Your task to perform on an android device: Find coffee shops on Maps Image 0: 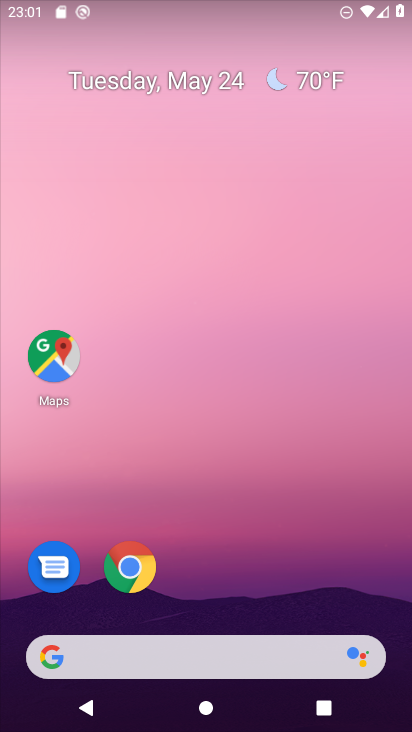
Step 0: click (52, 353)
Your task to perform on an android device: Find coffee shops on Maps Image 1: 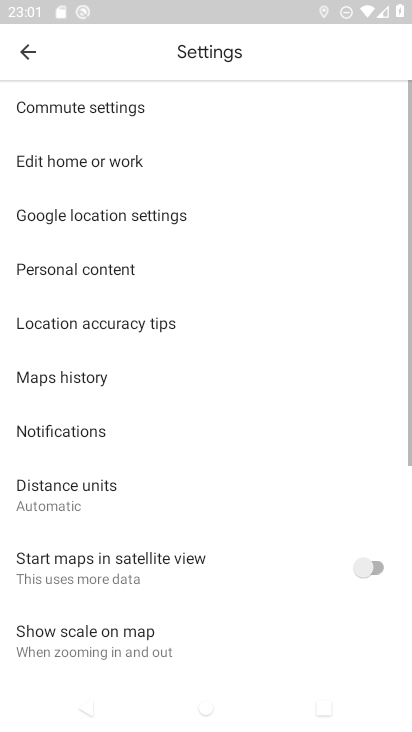
Step 1: click (23, 41)
Your task to perform on an android device: Find coffee shops on Maps Image 2: 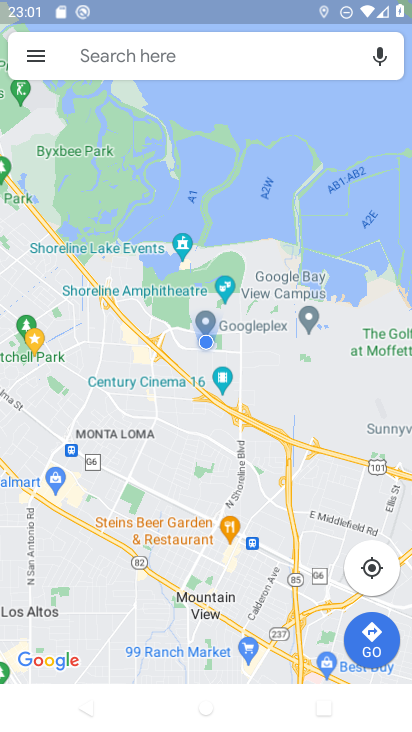
Step 2: click (213, 65)
Your task to perform on an android device: Find coffee shops on Maps Image 3: 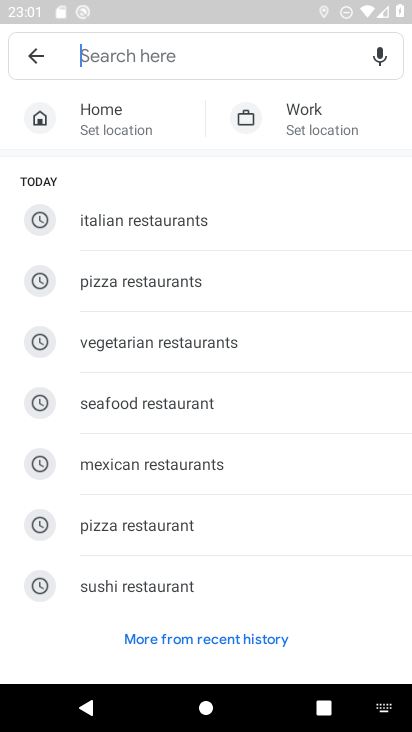
Step 3: drag from (252, 514) to (255, 261)
Your task to perform on an android device: Find coffee shops on Maps Image 4: 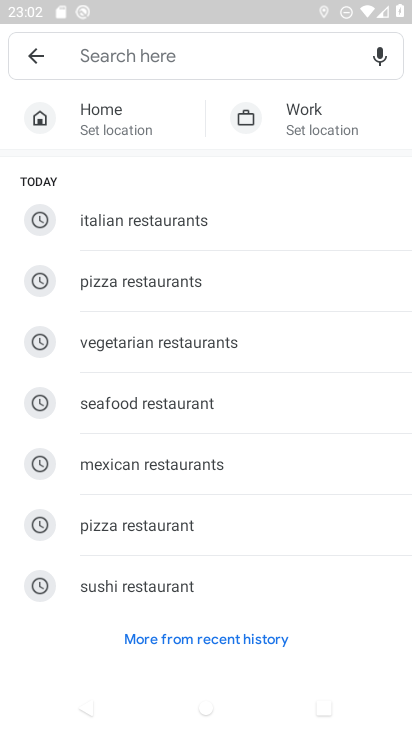
Step 4: click (161, 45)
Your task to perform on an android device: Find coffee shops on Maps Image 5: 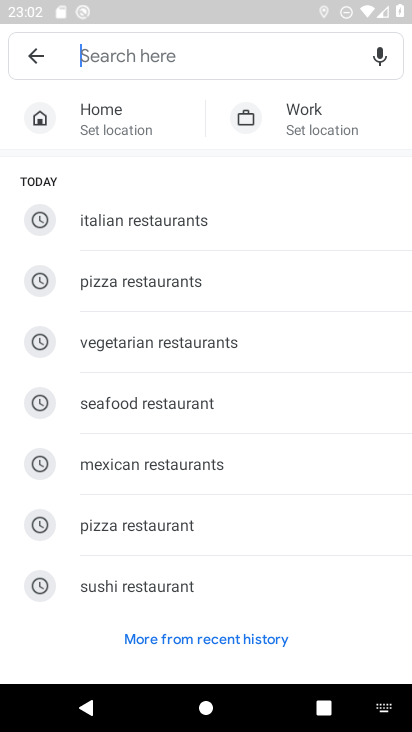
Step 5: type "coffee"
Your task to perform on an android device: Find coffee shops on Maps Image 6: 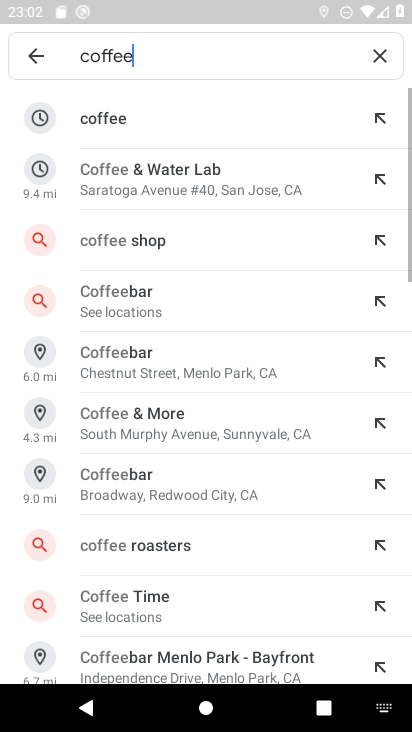
Step 6: click (123, 113)
Your task to perform on an android device: Find coffee shops on Maps Image 7: 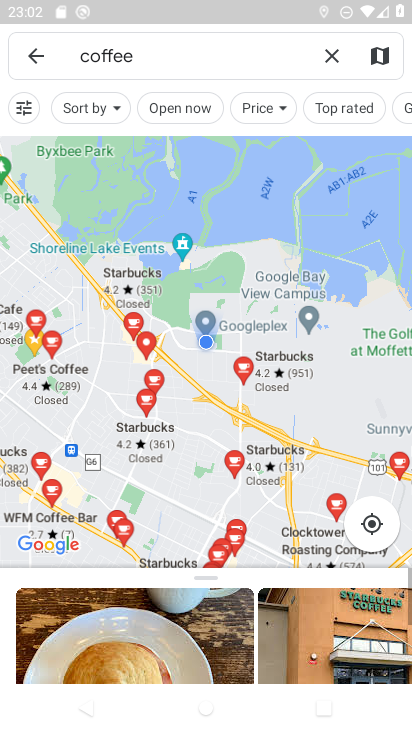
Step 7: task complete